Your task to perform on an android device: turn off notifications settings in the gmail app Image 0: 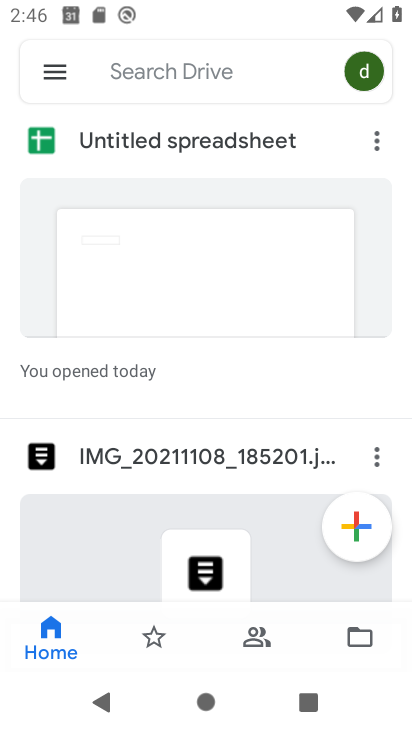
Step 0: press home button
Your task to perform on an android device: turn off notifications settings in the gmail app Image 1: 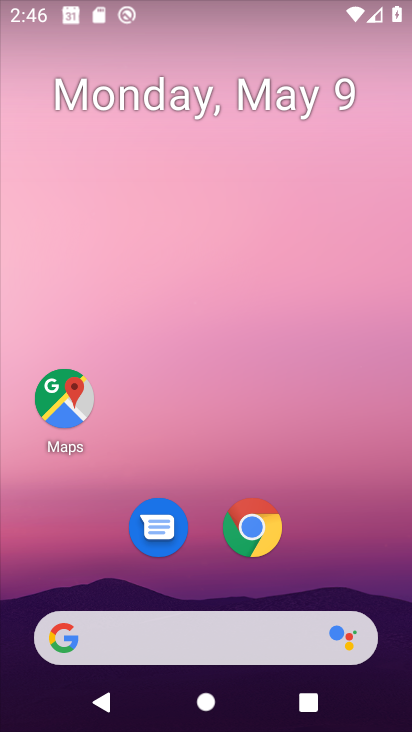
Step 1: drag from (237, 548) to (250, 195)
Your task to perform on an android device: turn off notifications settings in the gmail app Image 2: 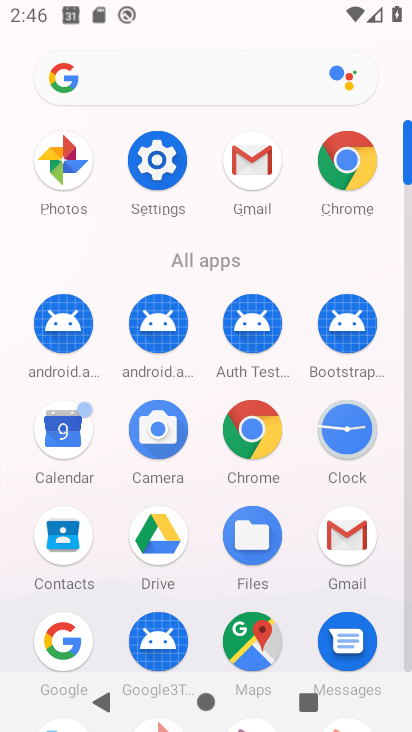
Step 2: click (350, 534)
Your task to perform on an android device: turn off notifications settings in the gmail app Image 3: 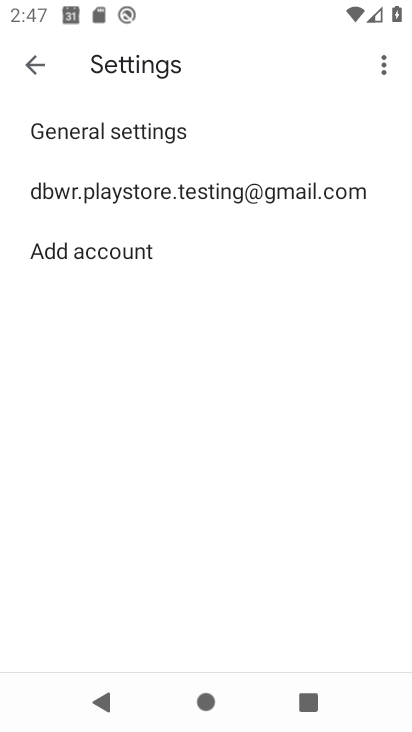
Step 3: click (187, 141)
Your task to perform on an android device: turn off notifications settings in the gmail app Image 4: 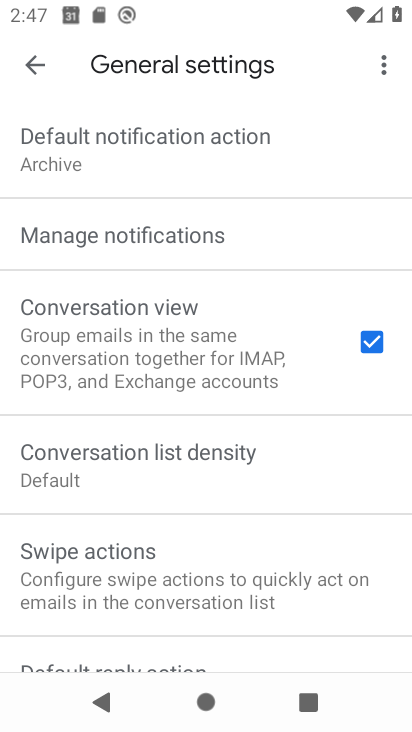
Step 4: click (191, 244)
Your task to perform on an android device: turn off notifications settings in the gmail app Image 5: 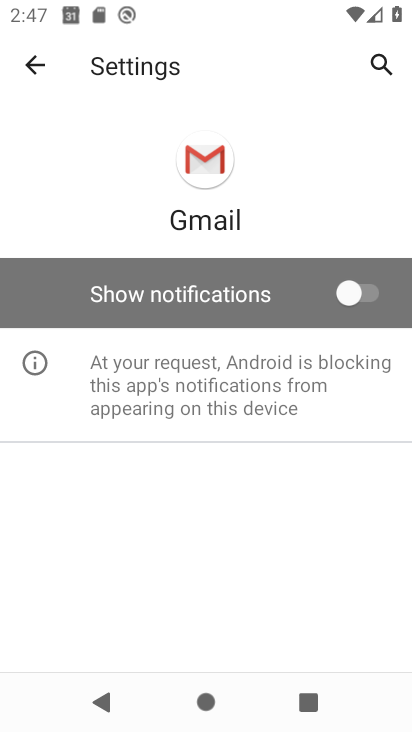
Step 5: task complete